Your task to perform on an android device: Open display settings Image 0: 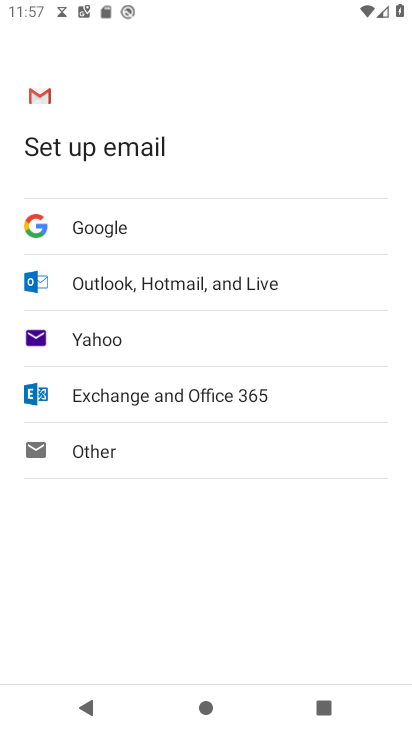
Step 0: press home button
Your task to perform on an android device: Open display settings Image 1: 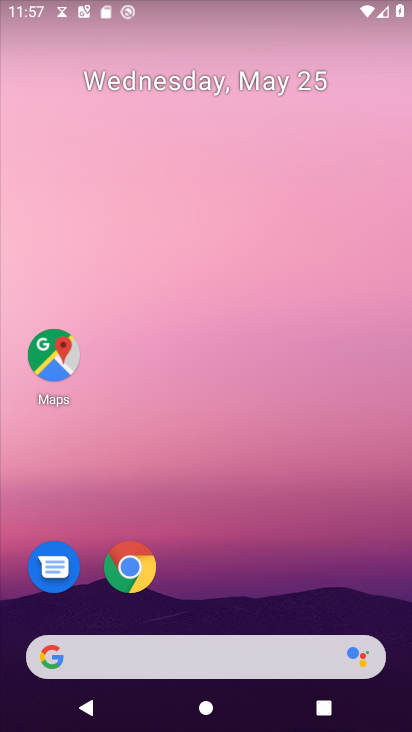
Step 1: click (46, 355)
Your task to perform on an android device: Open display settings Image 2: 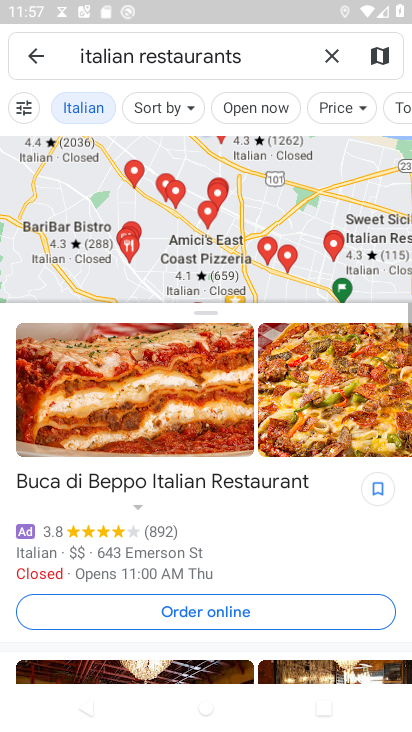
Step 2: press home button
Your task to perform on an android device: Open display settings Image 3: 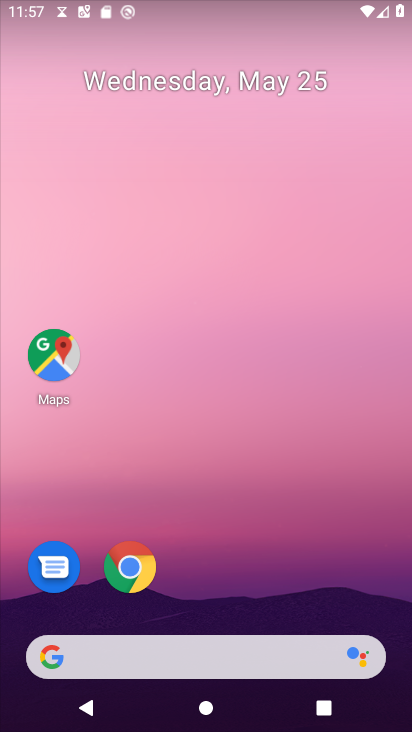
Step 3: drag from (171, 550) to (130, 107)
Your task to perform on an android device: Open display settings Image 4: 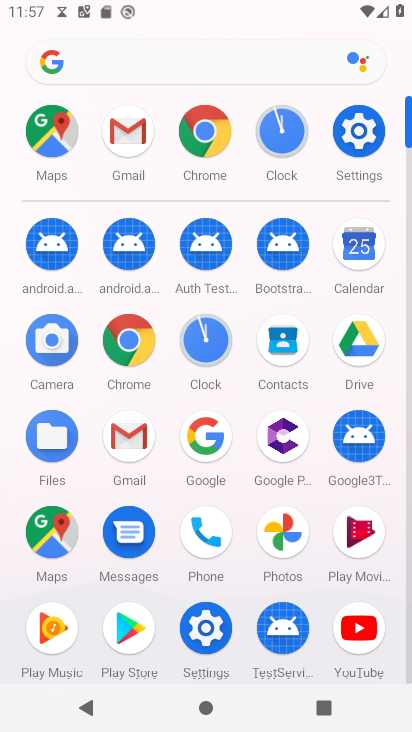
Step 4: click (362, 126)
Your task to perform on an android device: Open display settings Image 5: 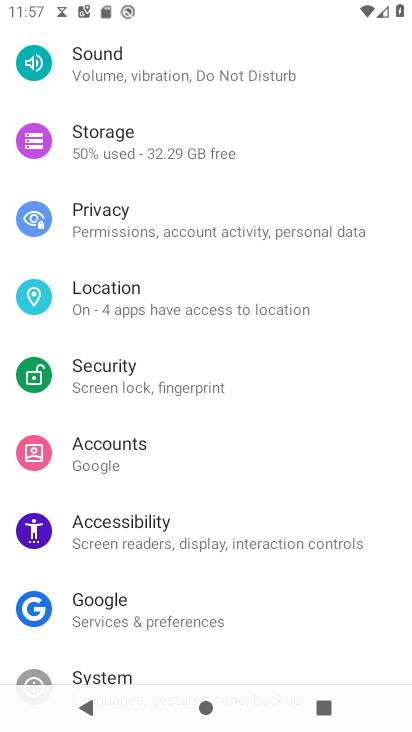
Step 5: drag from (115, 555) to (113, 186)
Your task to perform on an android device: Open display settings Image 6: 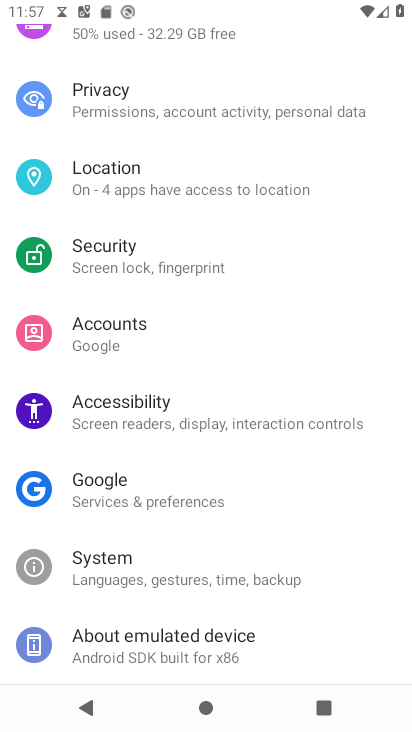
Step 6: drag from (146, 202) to (200, 574)
Your task to perform on an android device: Open display settings Image 7: 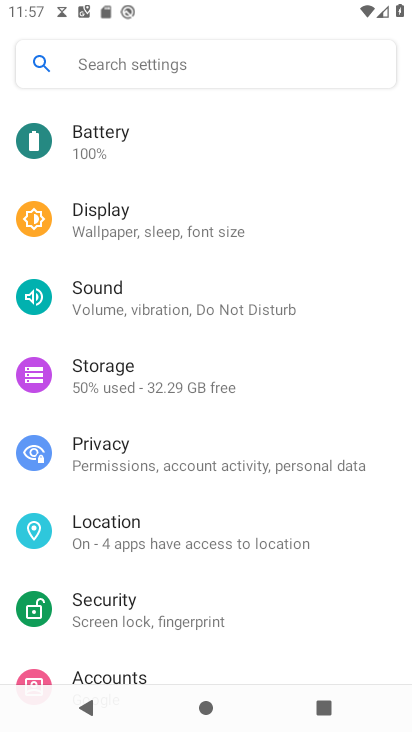
Step 7: click (223, 217)
Your task to perform on an android device: Open display settings Image 8: 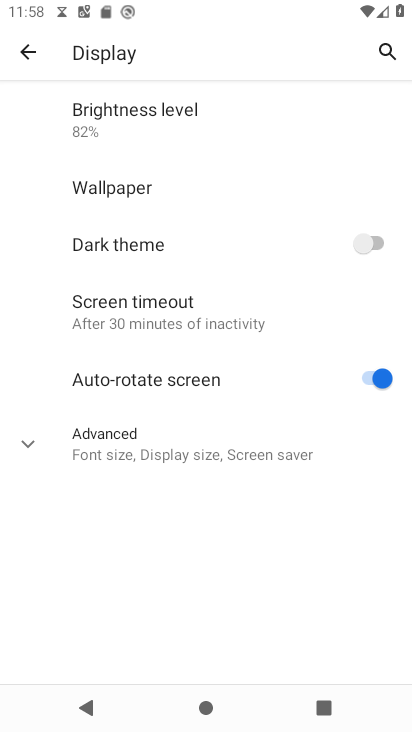
Step 8: task complete